Your task to perform on an android device: Go to network settings Image 0: 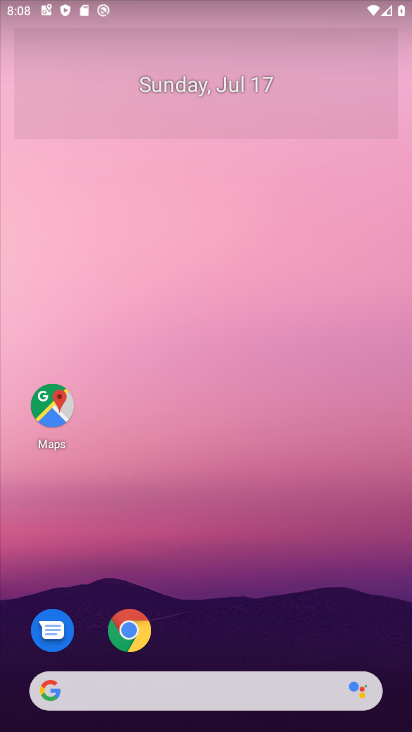
Step 0: drag from (195, 683) to (228, 20)
Your task to perform on an android device: Go to network settings Image 1: 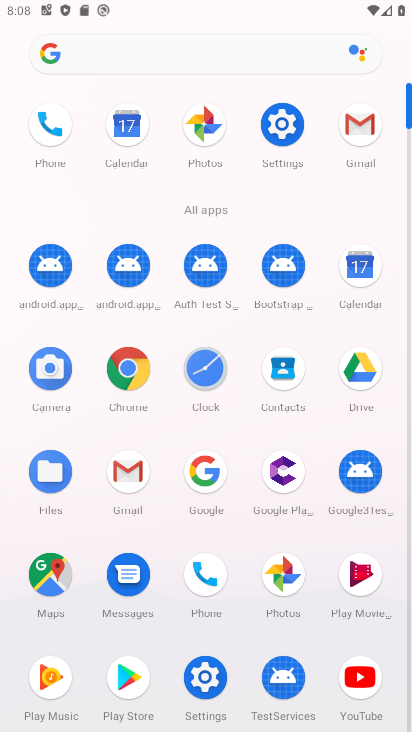
Step 1: click (283, 121)
Your task to perform on an android device: Go to network settings Image 2: 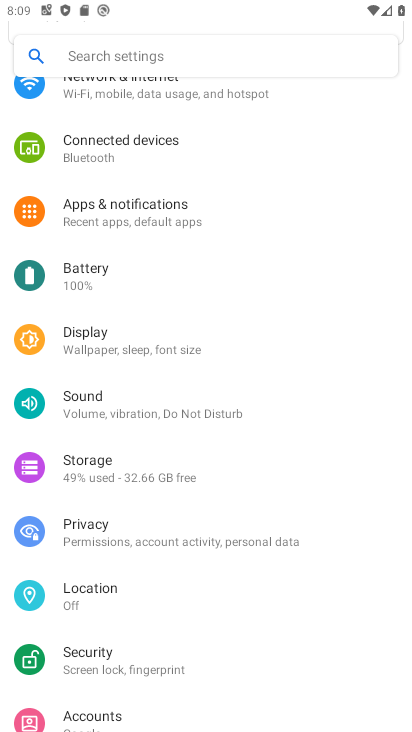
Step 2: click (156, 93)
Your task to perform on an android device: Go to network settings Image 3: 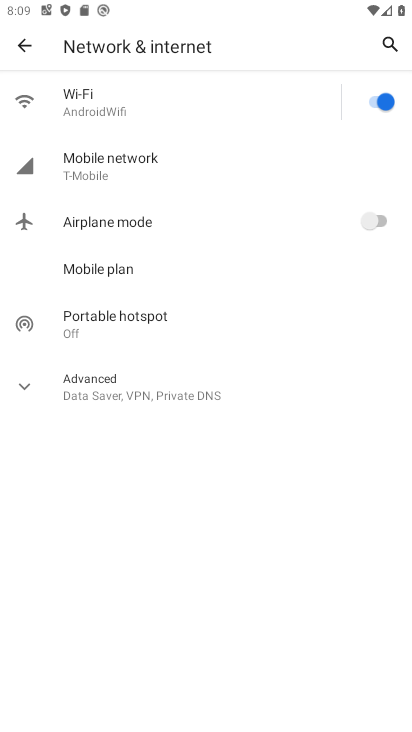
Step 3: task complete